Your task to perform on an android device: open app "Cash App" (install if not already installed), go to login, and select forgot password Image 0: 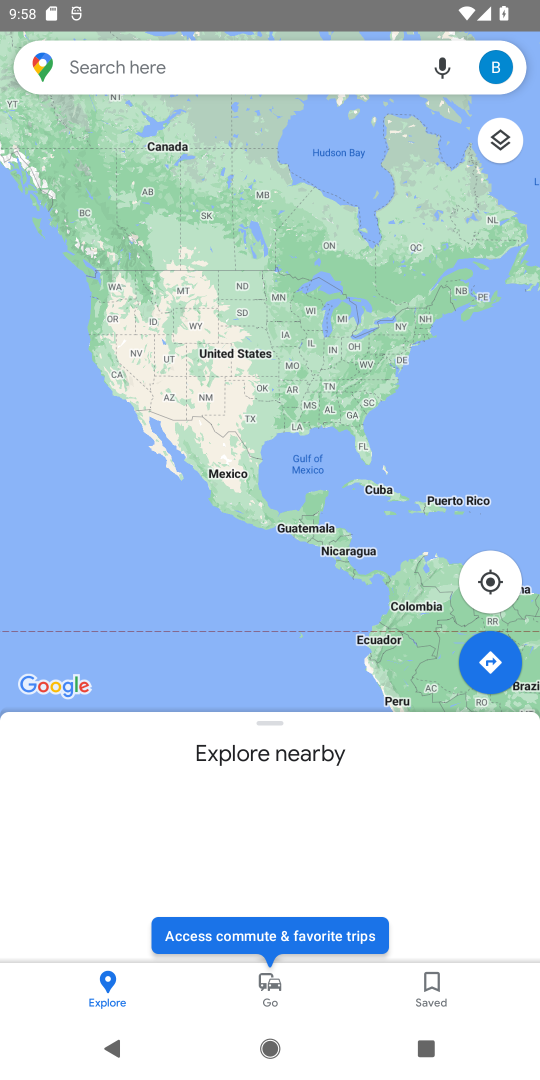
Step 0: press home button
Your task to perform on an android device: open app "Cash App" (install if not already installed), go to login, and select forgot password Image 1: 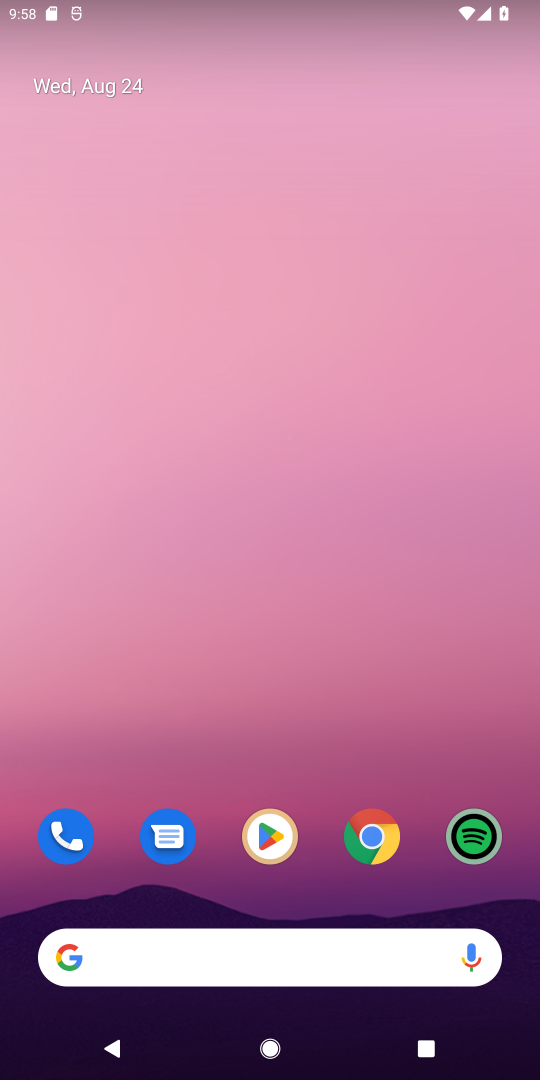
Step 1: click (259, 847)
Your task to perform on an android device: open app "Cash App" (install if not already installed), go to login, and select forgot password Image 2: 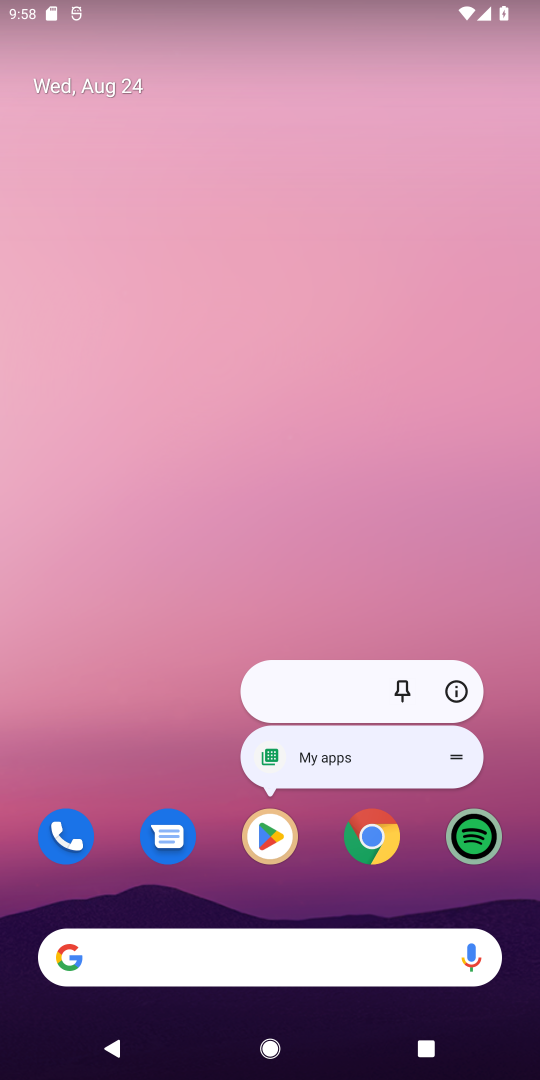
Step 2: click (266, 844)
Your task to perform on an android device: open app "Cash App" (install if not already installed), go to login, and select forgot password Image 3: 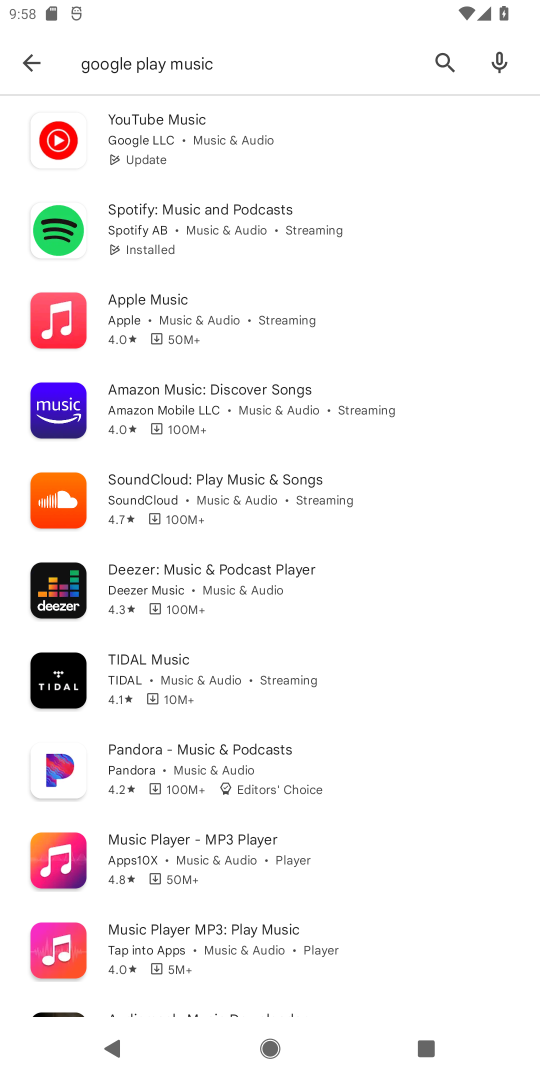
Step 3: click (439, 65)
Your task to perform on an android device: open app "Cash App" (install if not already installed), go to login, and select forgot password Image 4: 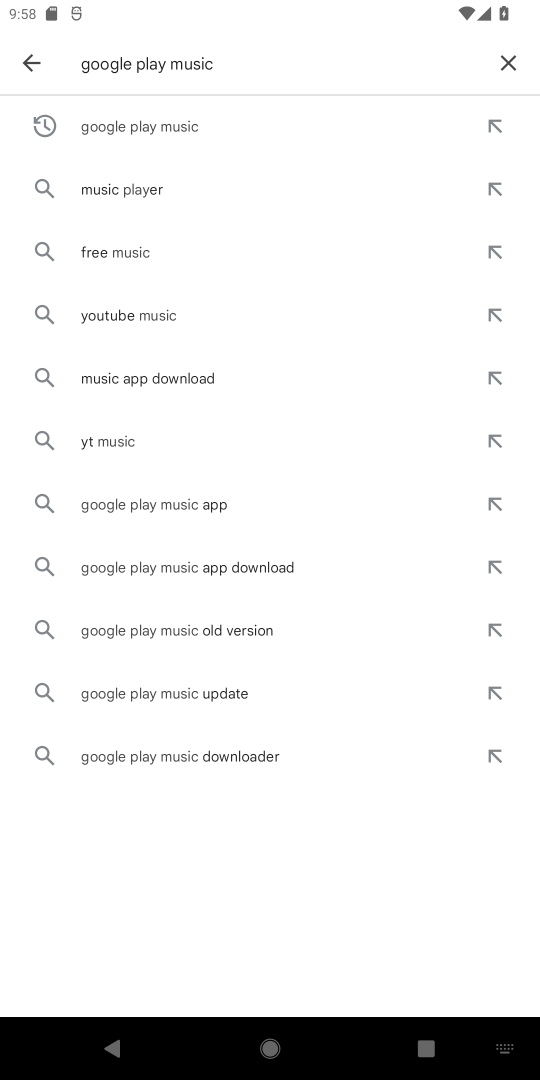
Step 4: click (506, 52)
Your task to perform on an android device: open app "Cash App" (install if not already installed), go to login, and select forgot password Image 5: 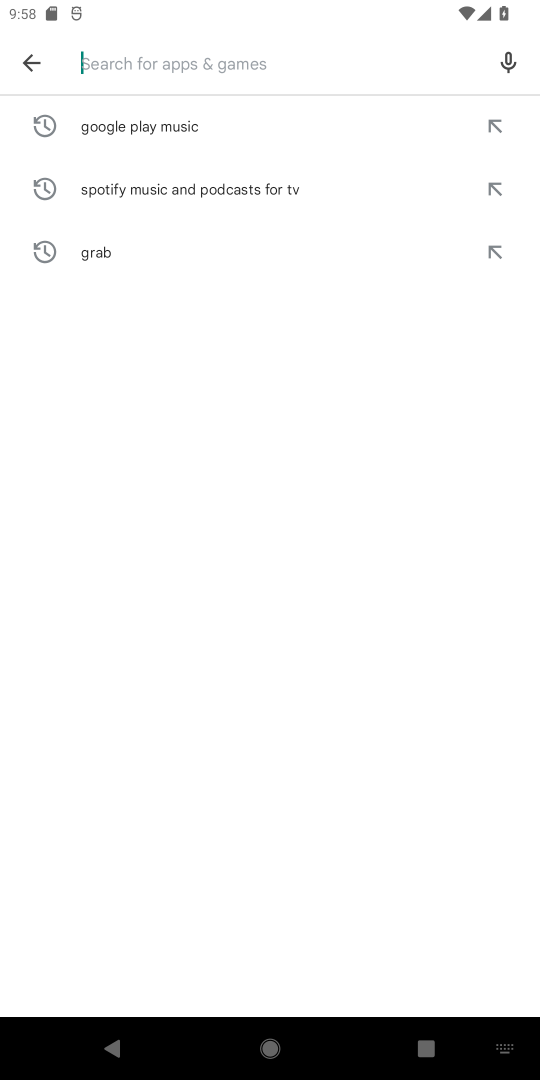
Step 5: type "Cash App"
Your task to perform on an android device: open app "Cash App" (install if not already installed), go to login, and select forgot password Image 6: 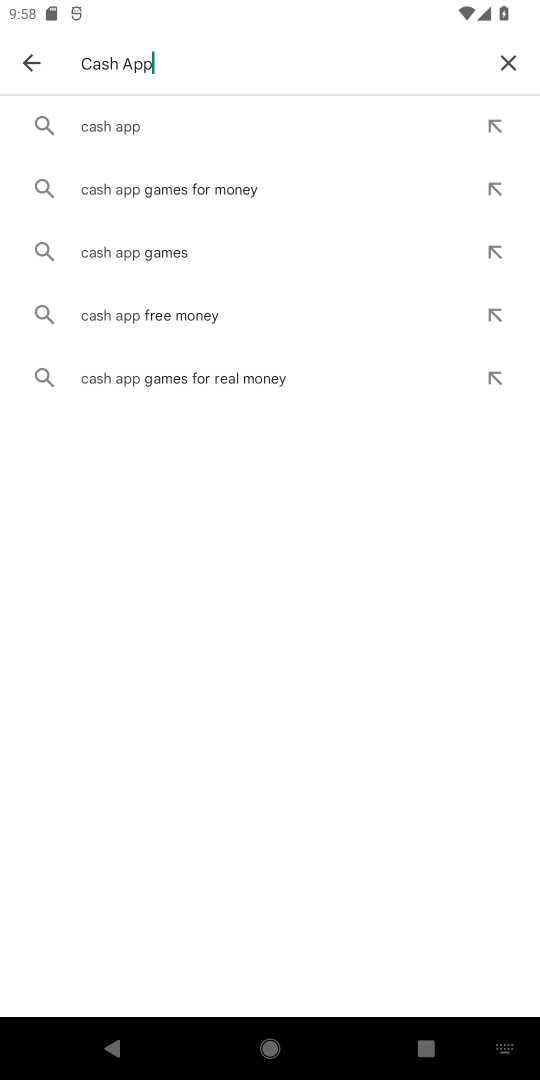
Step 6: click (185, 132)
Your task to perform on an android device: open app "Cash App" (install if not already installed), go to login, and select forgot password Image 7: 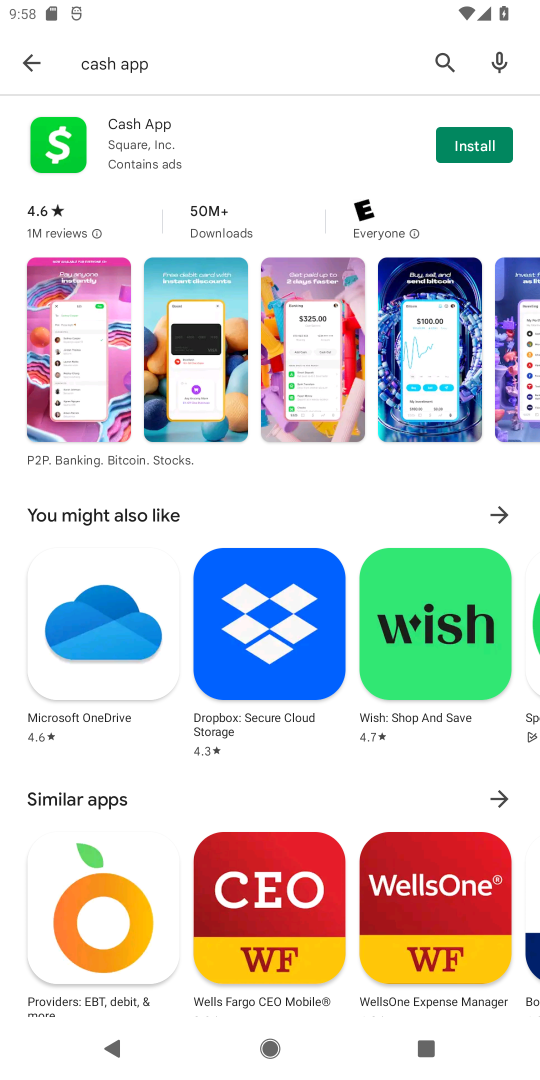
Step 7: click (463, 138)
Your task to perform on an android device: open app "Cash App" (install if not already installed), go to login, and select forgot password Image 8: 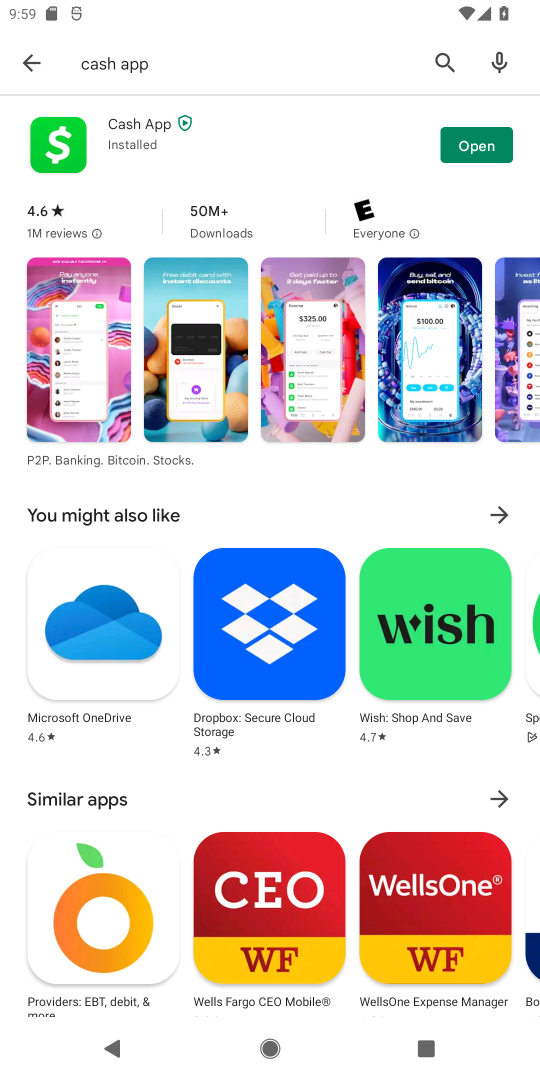
Step 8: click (474, 143)
Your task to perform on an android device: open app "Cash App" (install if not already installed), go to login, and select forgot password Image 9: 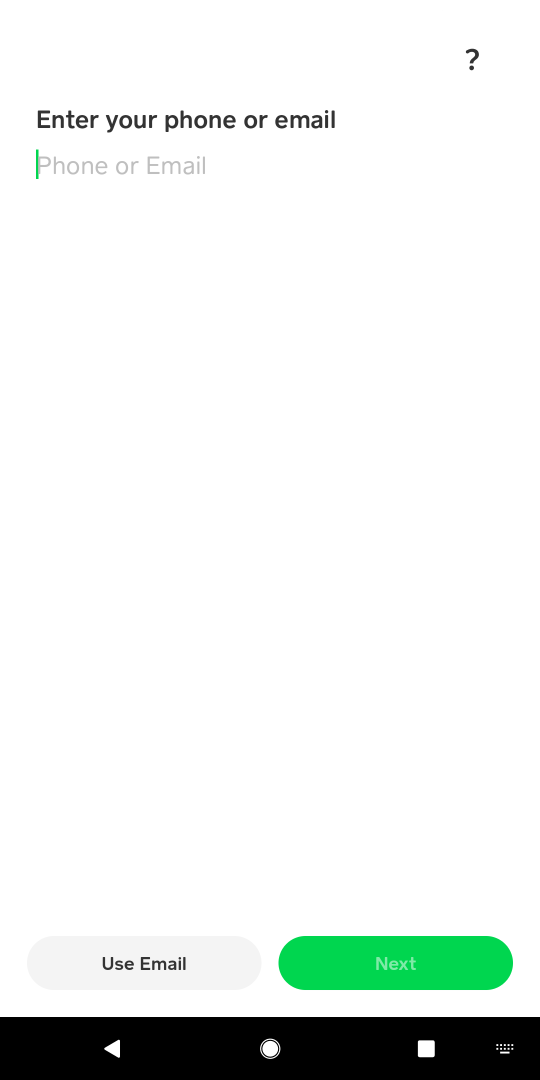
Step 9: task complete